Your task to perform on an android device: change alarm snooze length Image 0: 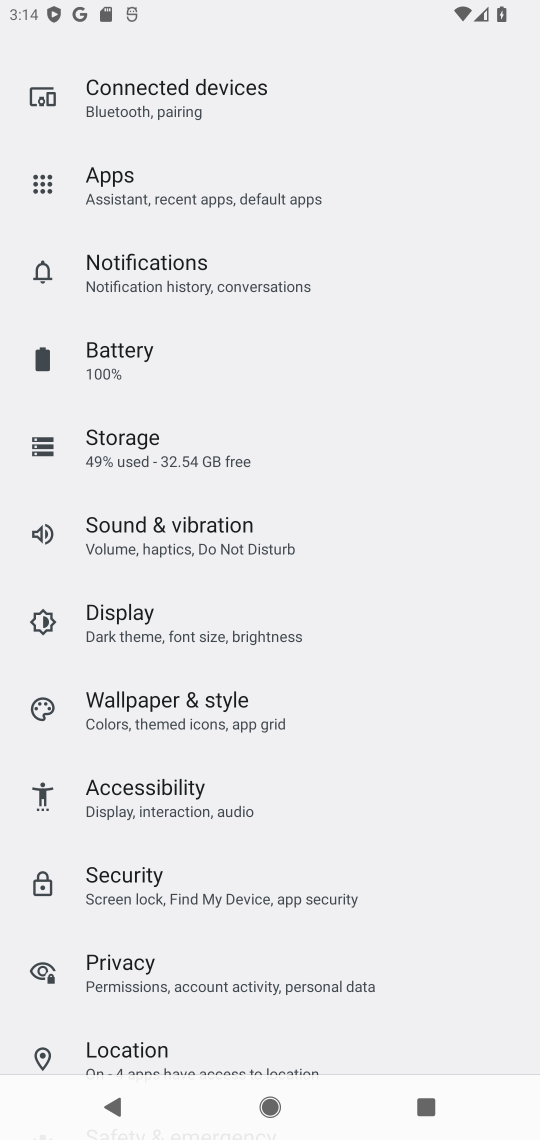
Step 0: press home button
Your task to perform on an android device: change alarm snooze length Image 1: 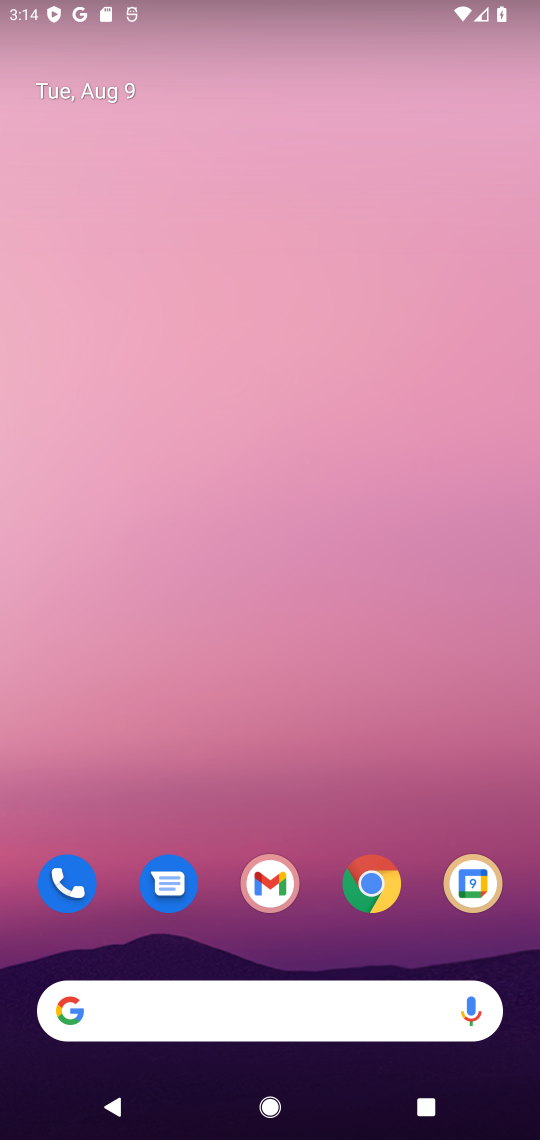
Step 1: drag from (414, 953) to (409, 130)
Your task to perform on an android device: change alarm snooze length Image 2: 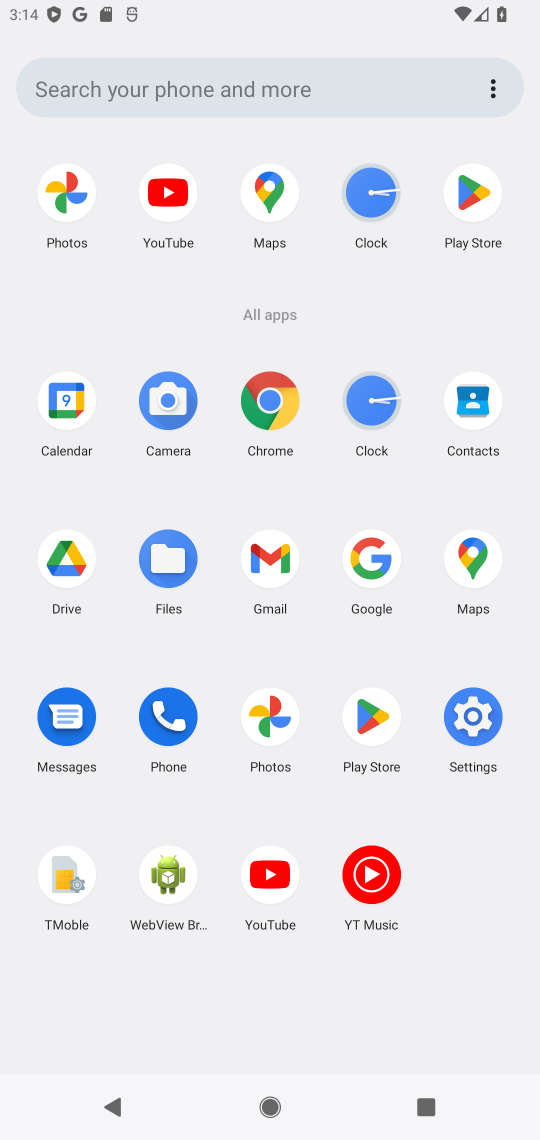
Step 2: click (372, 400)
Your task to perform on an android device: change alarm snooze length Image 3: 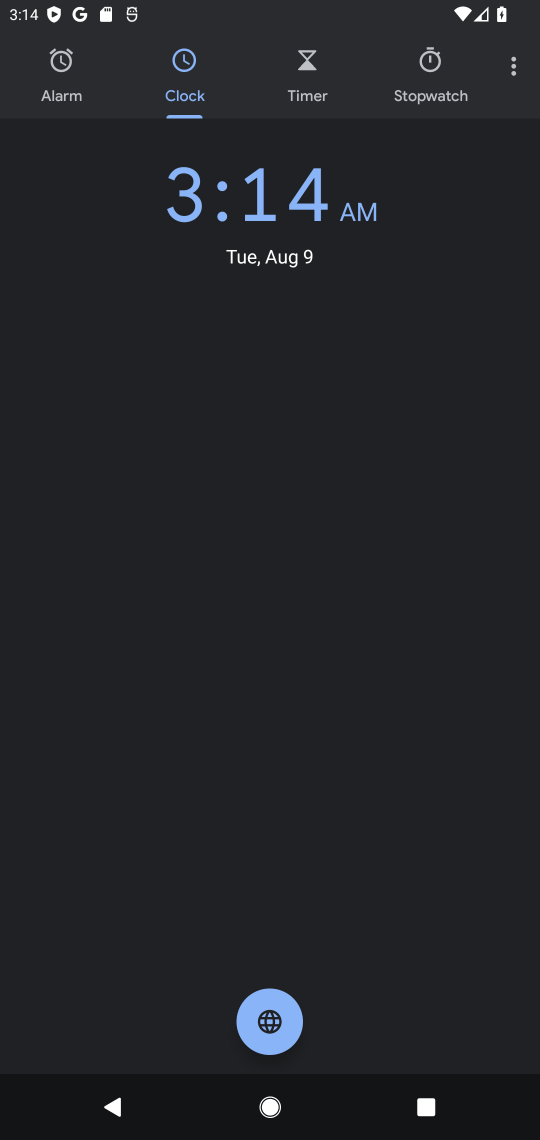
Step 3: click (509, 78)
Your task to perform on an android device: change alarm snooze length Image 4: 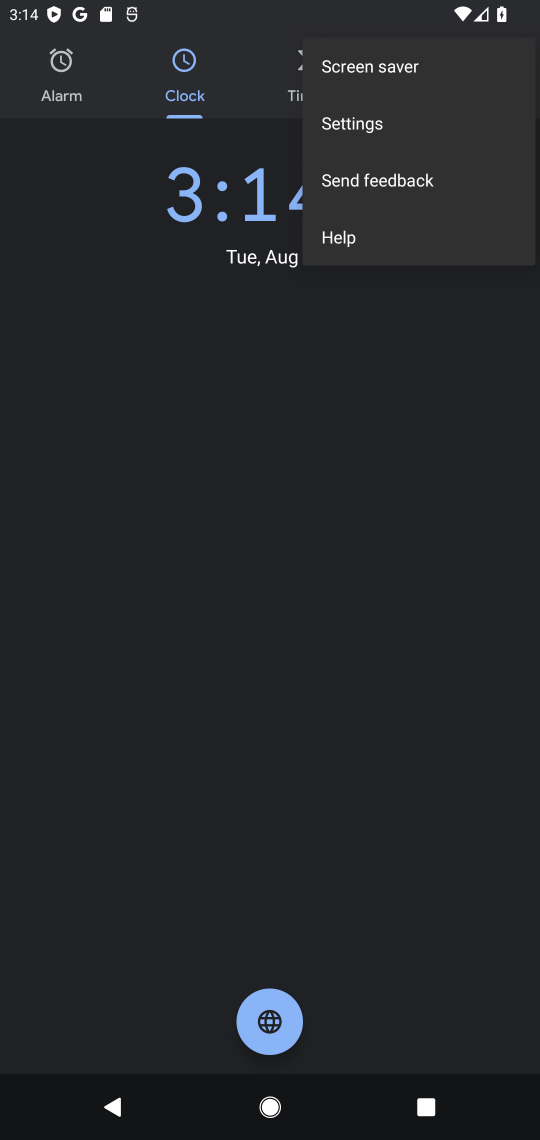
Step 4: click (351, 122)
Your task to perform on an android device: change alarm snooze length Image 5: 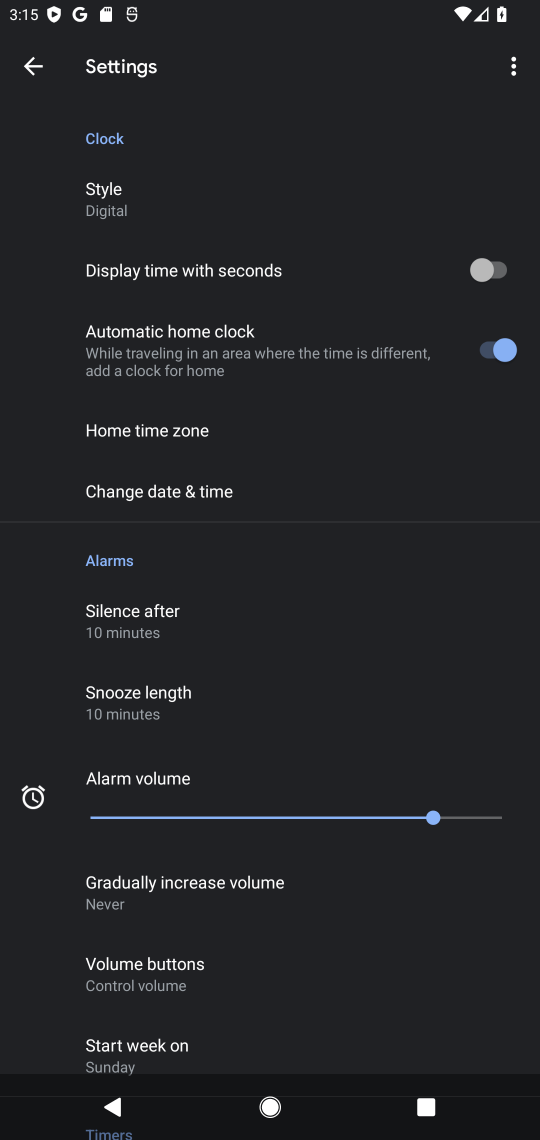
Step 5: click (110, 698)
Your task to perform on an android device: change alarm snooze length Image 6: 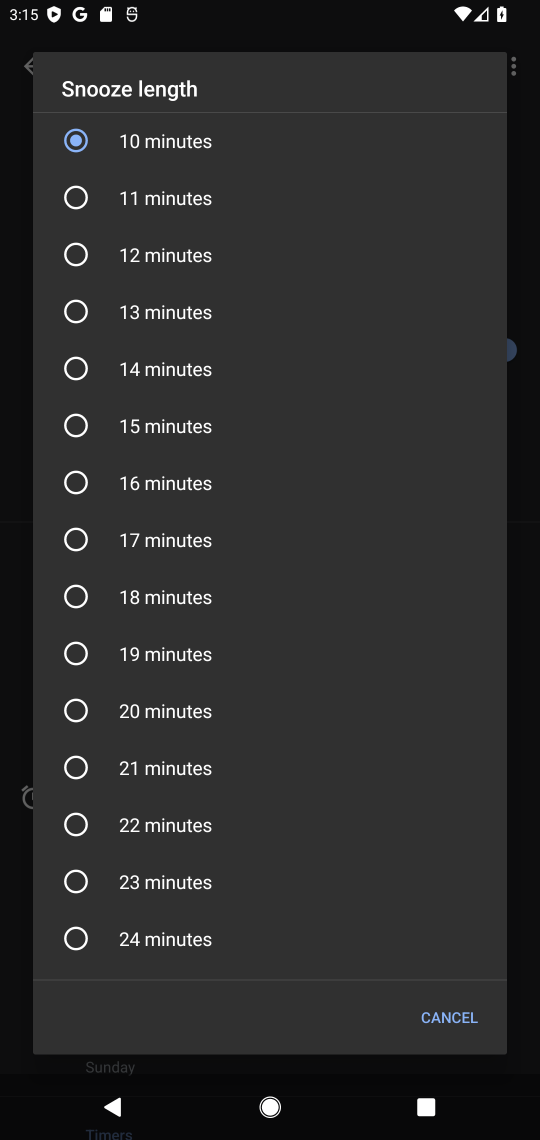
Step 6: click (71, 426)
Your task to perform on an android device: change alarm snooze length Image 7: 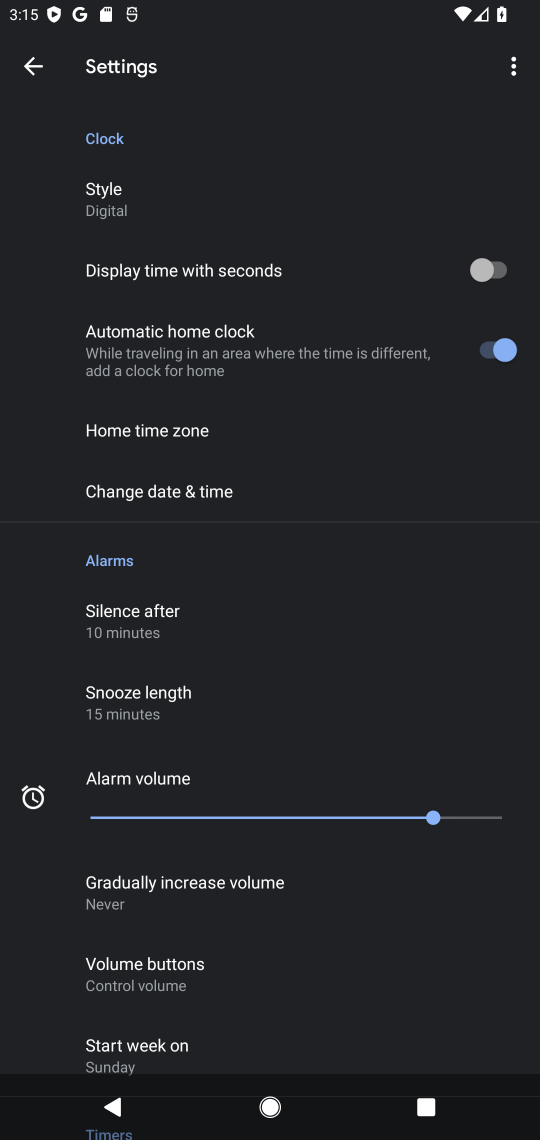
Step 7: task complete